Your task to perform on an android device: Is it going to rain tomorrow? Image 0: 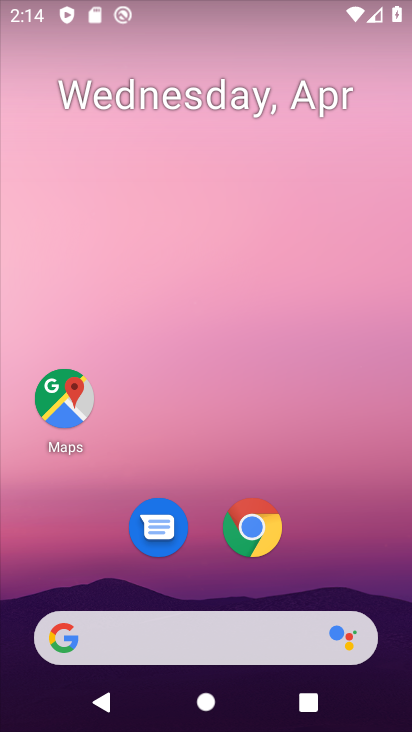
Step 0: drag from (350, 461) to (385, 106)
Your task to perform on an android device: Is it going to rain tomorrow? Image 1: 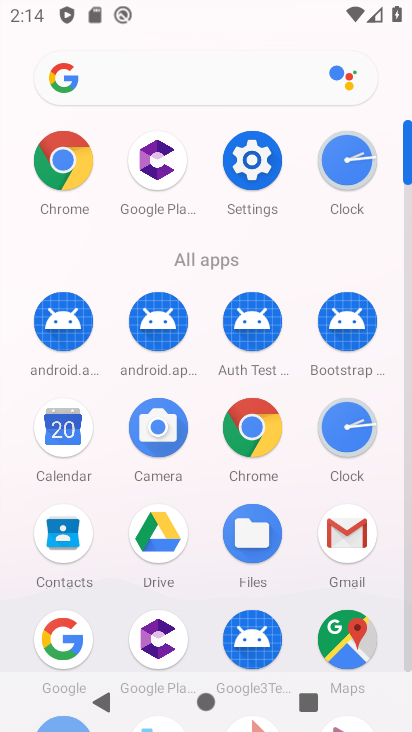
Step 1: click (112, 697)
Your task to perform on an android device: Is it going to rain tomorrow? Image 2: 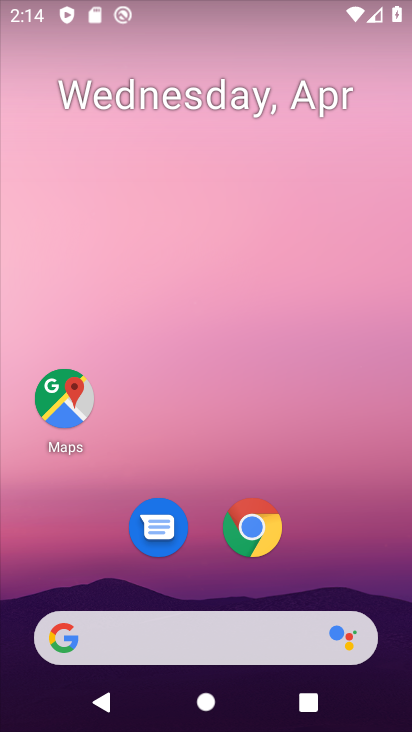
Step 2: drag from (4, 215) to (401, 244)
Your task to perform on an android device: Is it going to rain tomorrow? Image 3: 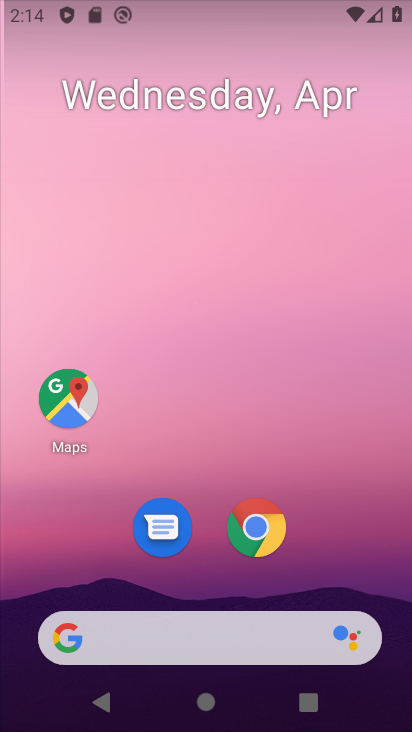
Step 3: drag from (163, 212) to (386, 168)
Your task to perform on an android device: Is it going to rain tomorrow? Image 4: 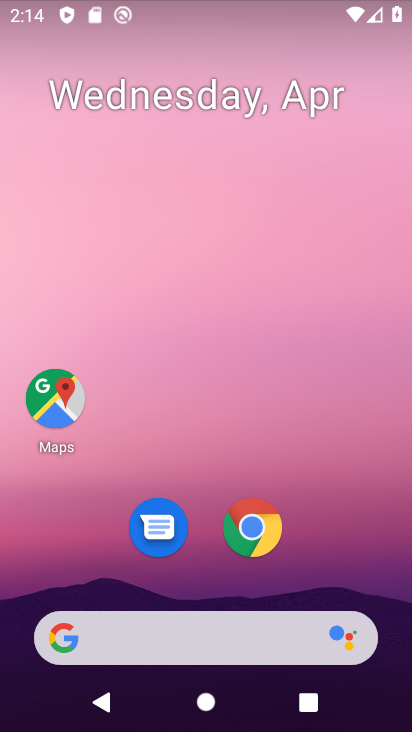
Step 4: drag from (156, 206) to (399, 216)
Your task to perform on an android device: Is it going to rain tomorrow? Image 5: 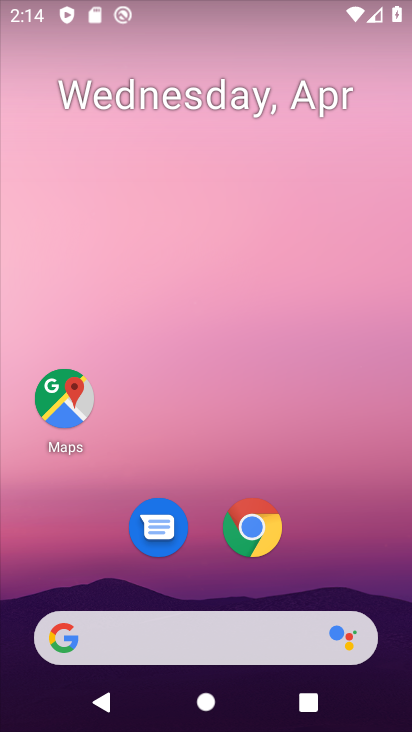
Step 5: drag from (13, 144) to (391, 211)
Your task to perform on an android device: Is it going to rain tomorrow? Image 6: 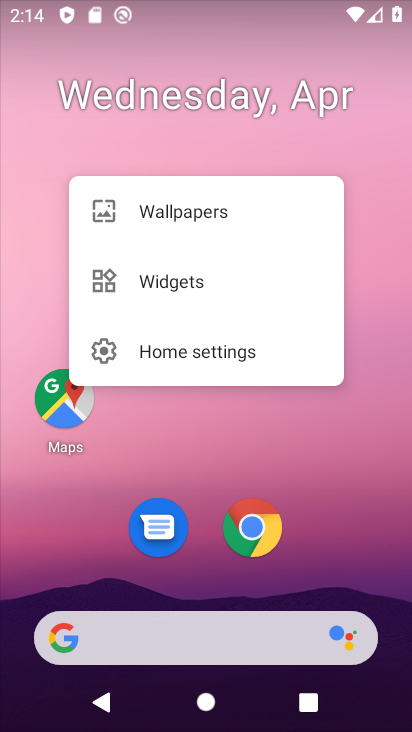
Step 6: click (26, 134)
Your task to perform on an android device: Is it going to rain tomorrow? Image 7: 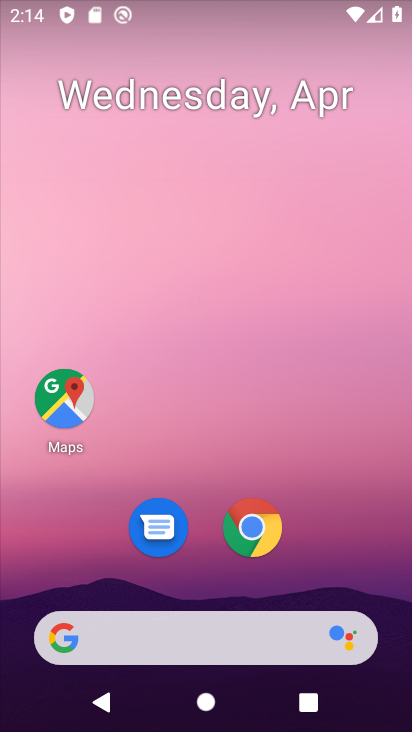
Step 7: drag from (8, 145) to (409, 195)
Your task to perform on an android device: Is it going to rain tomorrow? Image 8: 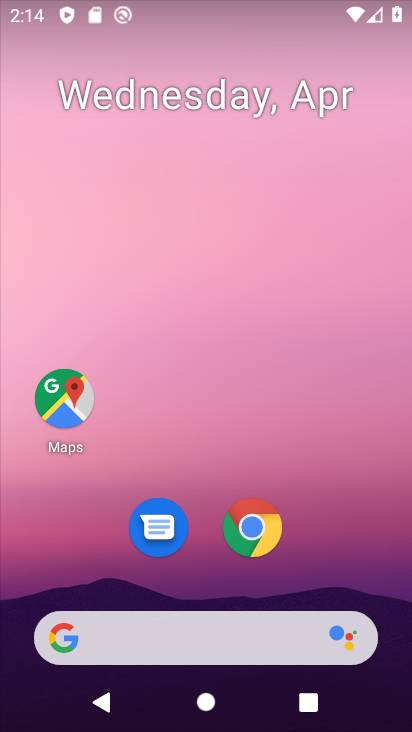
Step 8: drag from (25, 220) to (332, 129)
Your task to perform on an android device: Is it going to rain tomorrow? Image 9: 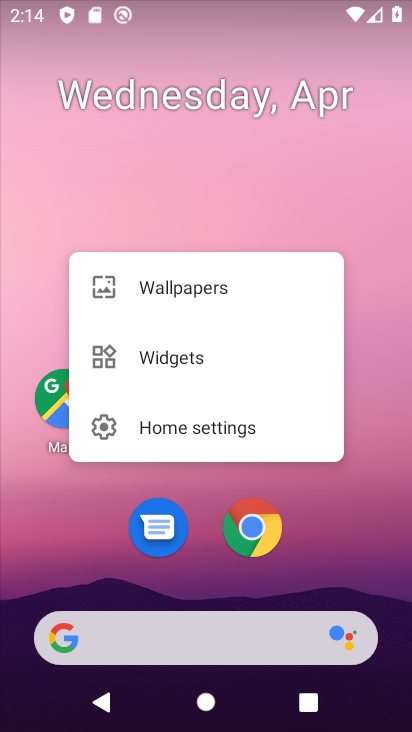
Step 9: click (98, 121)
Your task to perform on an android device: Is it going to rain tomorrow? Image 10: 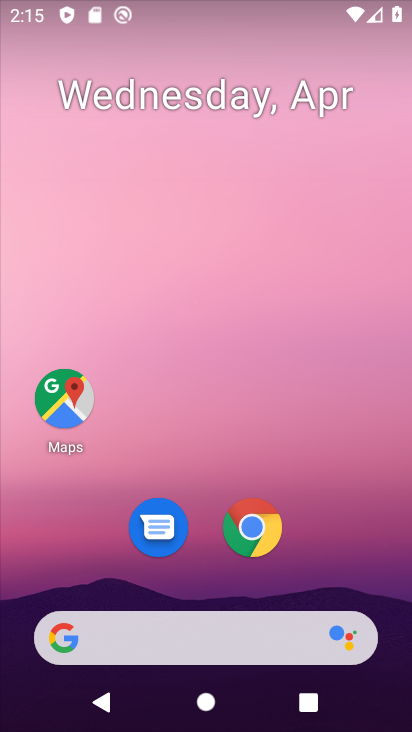
Step 10: drag from (16, 196) to (404, 226)
Your task to perform on an android device: Is it going to rain tomorrow? Image 11: 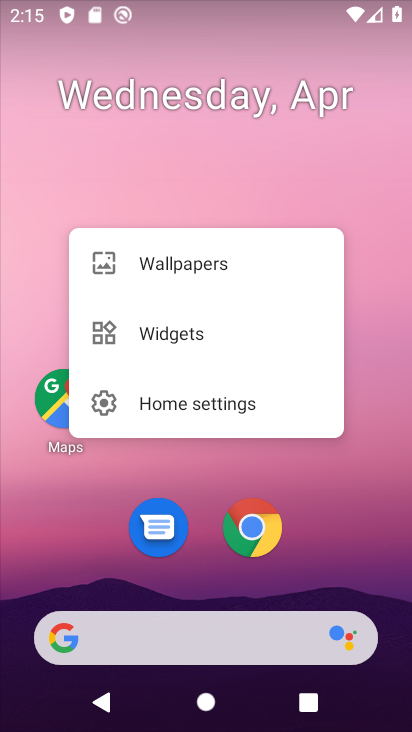
Step 11: click (73, 174)
Your task to perform on an android device: Is it going to rain tomorrow? Image 12: 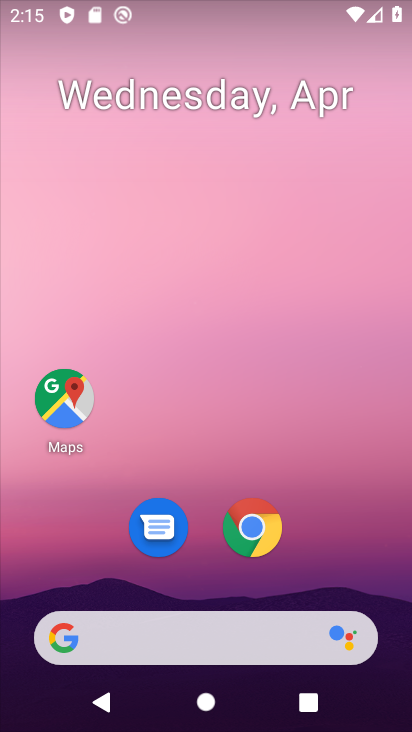
Step 12: drag from (138, 172) to (411, 197)
Your task to perform on an android device: Is it going to rain tomorrow? Image 13: 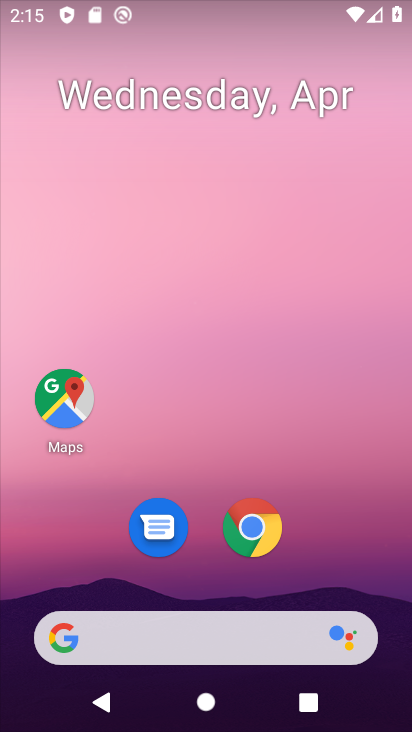
Step 13: drag from (28, 152) to (405, 211)
Your task to perform on an android device: Is it going to rain tomorrow? Image 14: 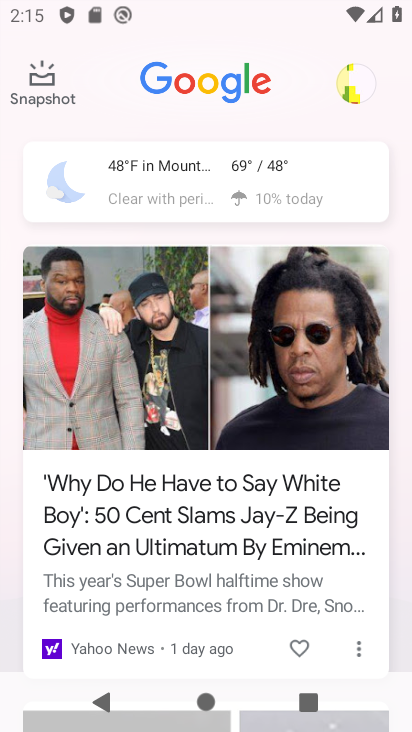
Step 14: click (202, 166)
Your task to perform on an android device: Is it going to rain tomorrow? Image 15: 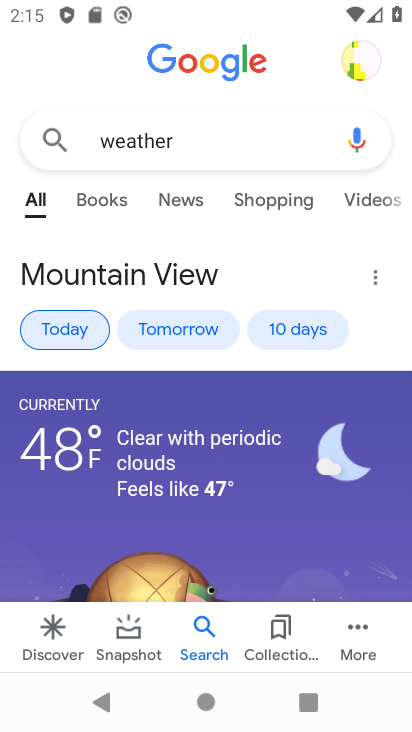
Step 15: click (177, 333)
Your task to perform on an android device: Is it going to rain tomorrow? Image 16: 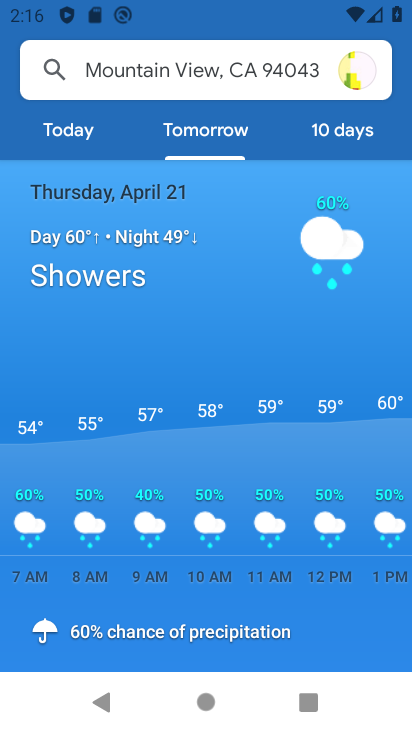
Step 16: task complete